Your task to perform on an android device: visit the assistant section in the google photos Image 0: 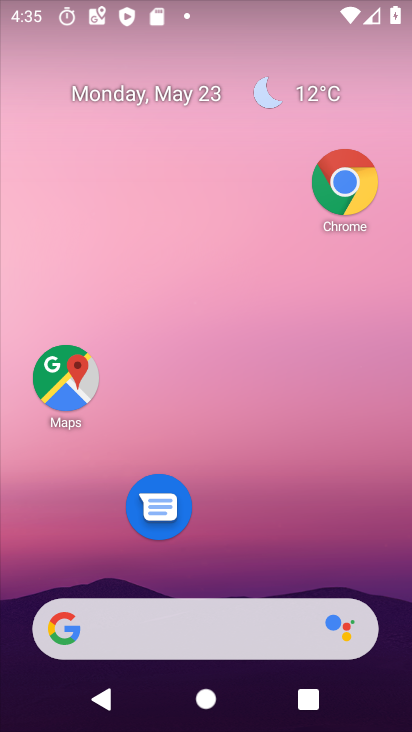
Step 0: drag from (230, 572) to (257, 2)
Your task to perform on an android device: visit the assistant section in the google photos Image 1: 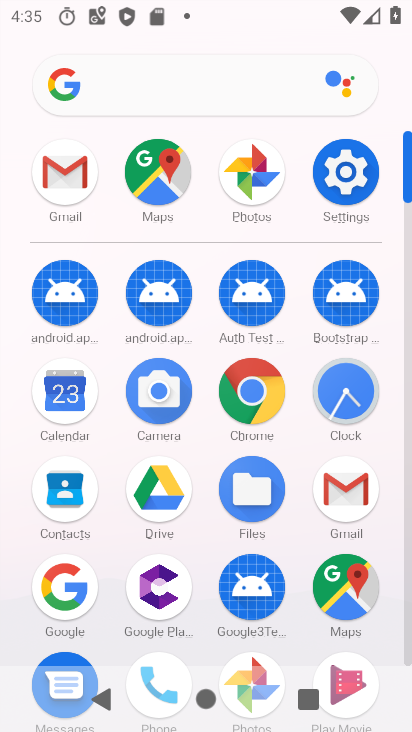
Step 1: click (241, 189)
Your task to perform on an android device: visit the assistant section in the google photos Image 2: 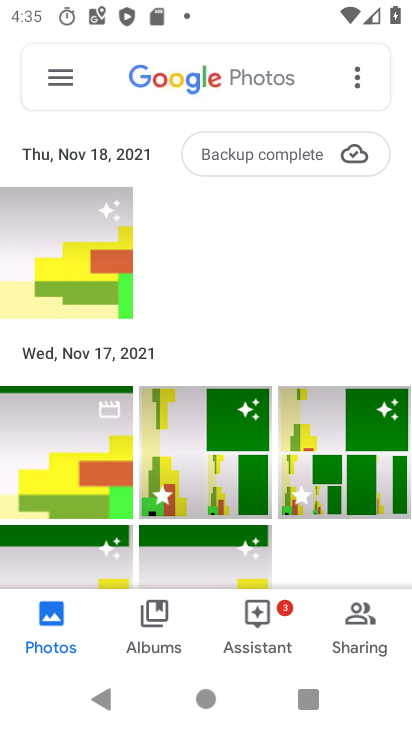
Step 2: click (262, 624)
Your task to perform on an android device: visit the assistant section in the google photos Image 3: 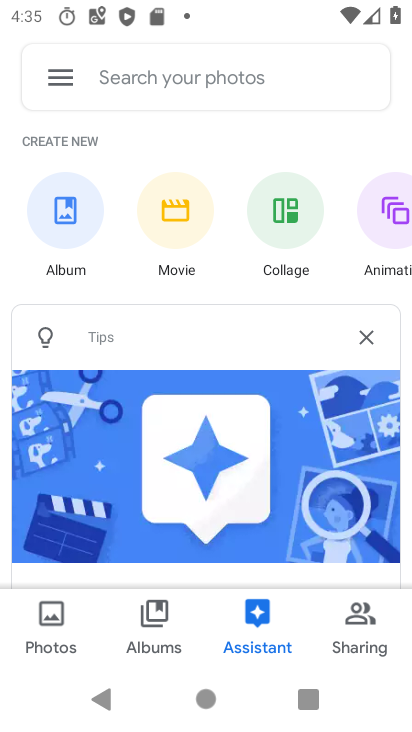
Step 3: task complete